Your task to perform on an android device: see tabs open on other devices in the chrome app Image 0: 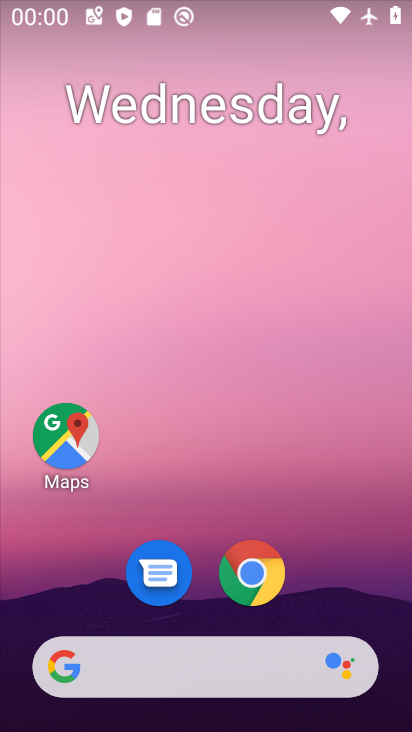
Step 0: drag from (347, 516) to (327, 278)
Your task to perform on an android device: see tabs open on other devices in the chrome app Image 1: 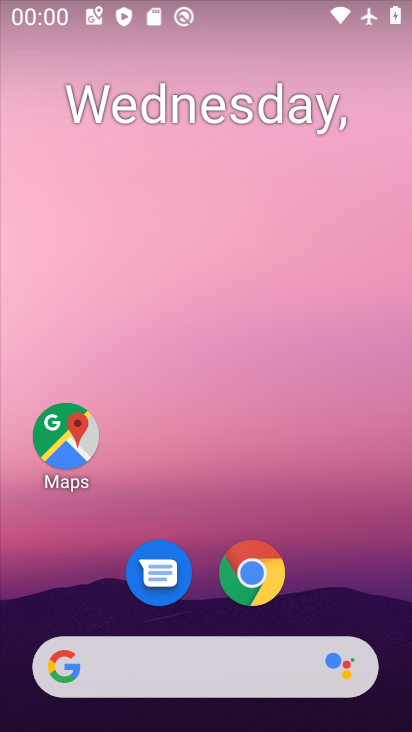
Step 1: click (255, 569)
Your task to perform on an android device: see tabs open on other devices in the chrome app Image 2: 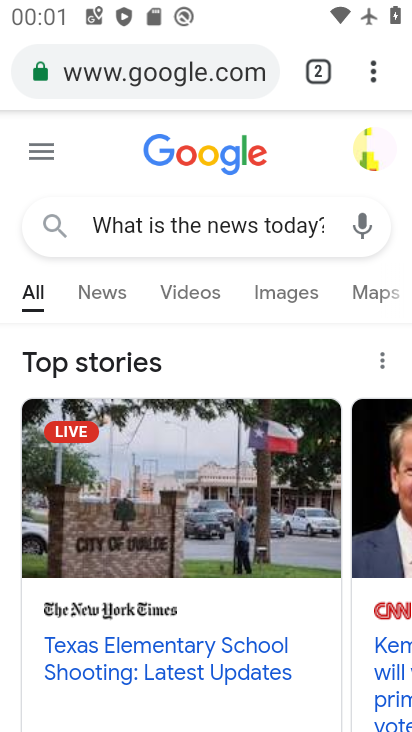
Step 2: click (367, 67)
Your task to perform on an android device: see tabs open on other devices in the chrome app Image 3: 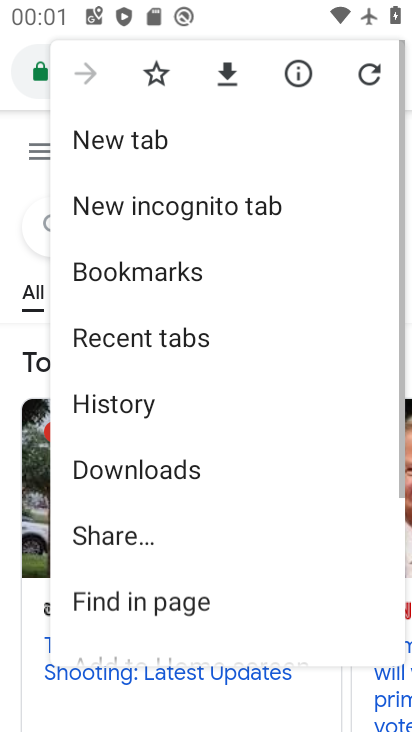
Step 3: click (379, 59)
Your task to perform on an android device: see tabs open on other devices in the chrome app Image 4: 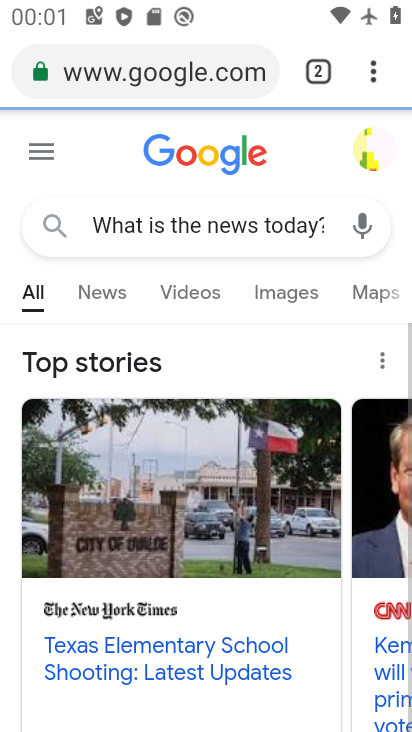
Step 4: click (364, 76)
Your task to perform on an android device: see tabs open on other devices in the chrome app Image 5: 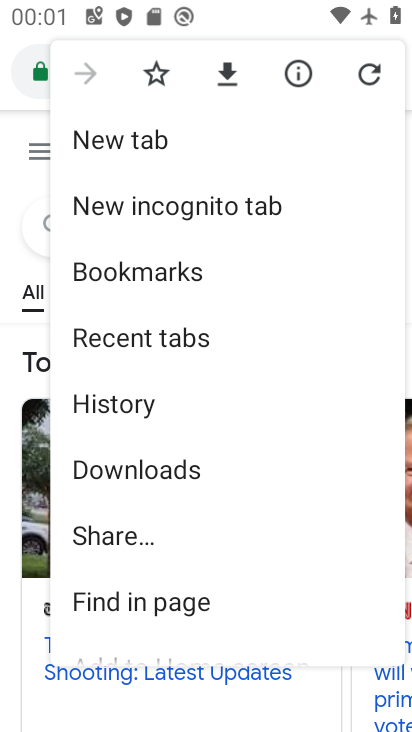
Step 5: click (112, 401)
Your task to perform on an android device: see tabs open on other devices in the chrome app Image 6: 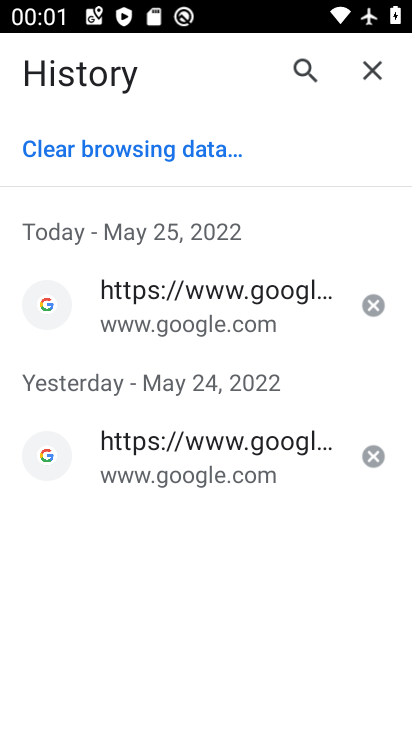
Step 6: task complete